Your task to perform on an android device: open app "Google Duo" Image 0: 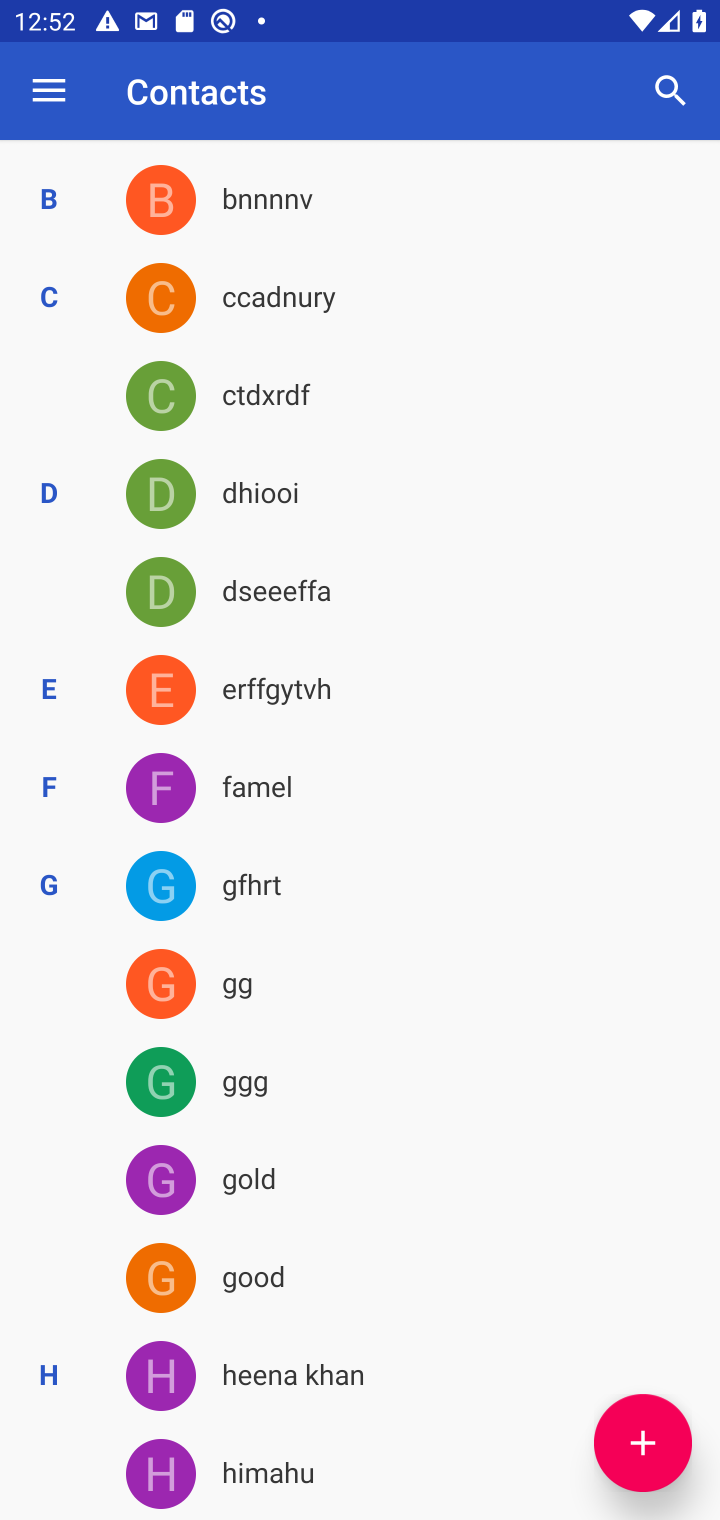
Step 0: press home button
Your task to perform on an android device: open app "Google Duo" Image 1: 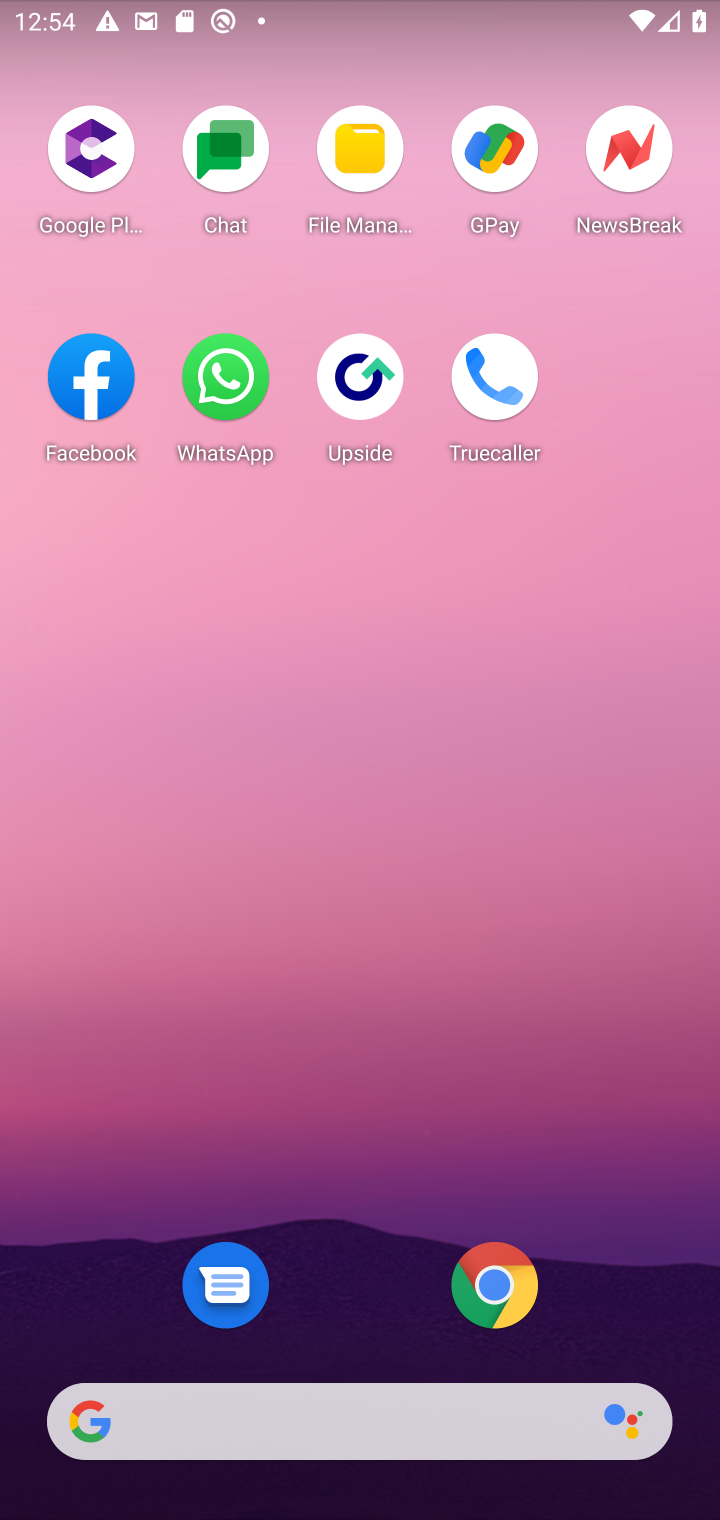
Step 1: drag from (348, 1321) to (254, 26)
Your task to perform on an android device: open app "Google Duo" Image 2: 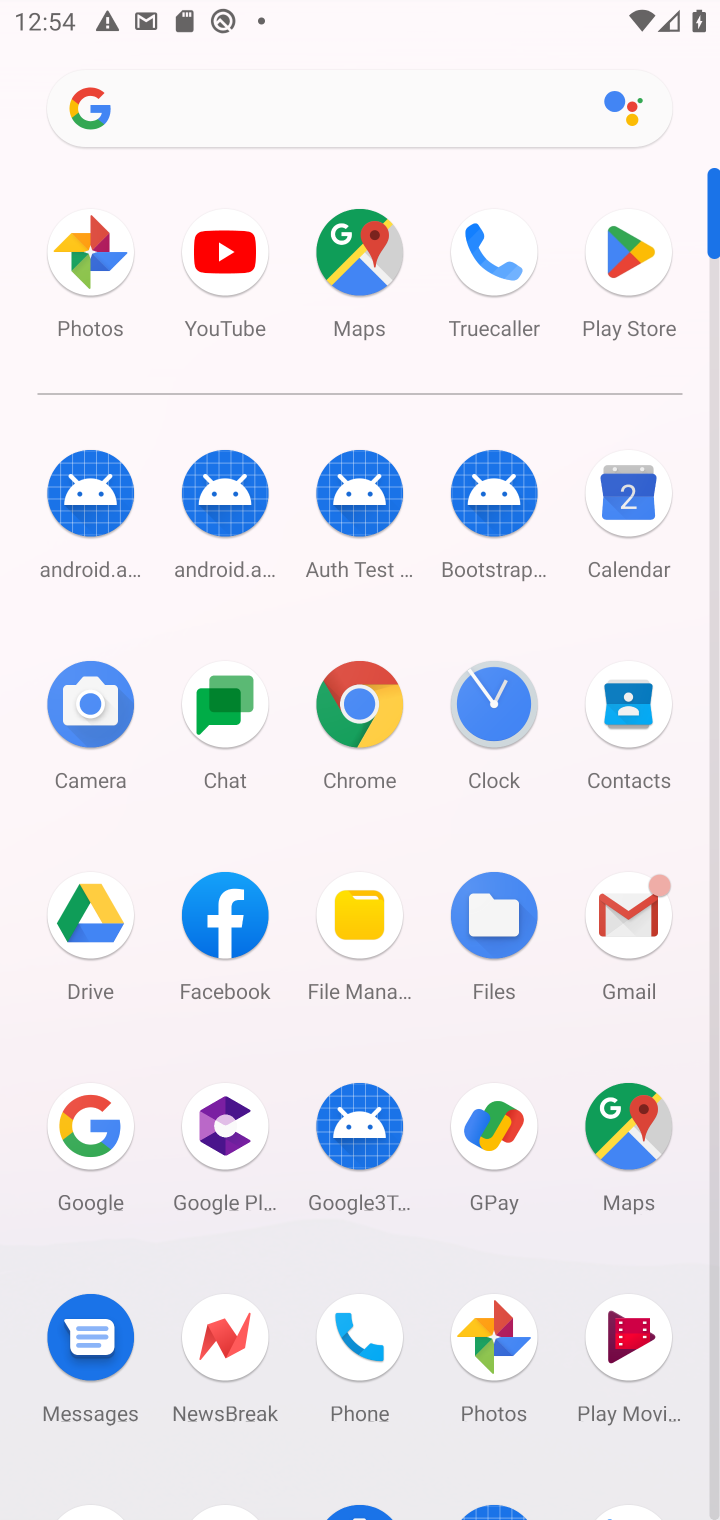
Step 2: drag from (409, 1205) to (396, 331)
Your task to perform on an android device: open app "Google Duo" Image 3: 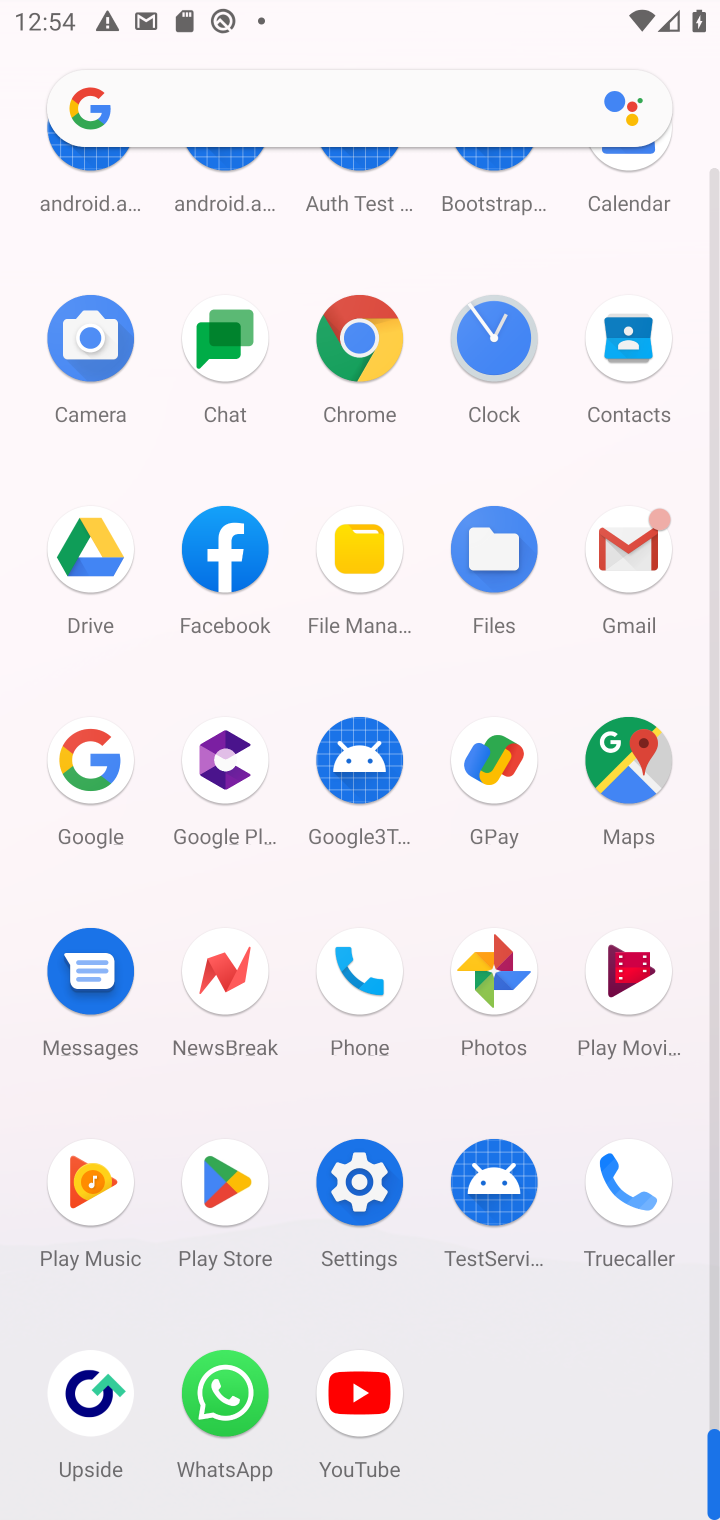
Step 3: click (222, 1178)
Your task to perform on an android device: open app "Google Duo" Image 4: 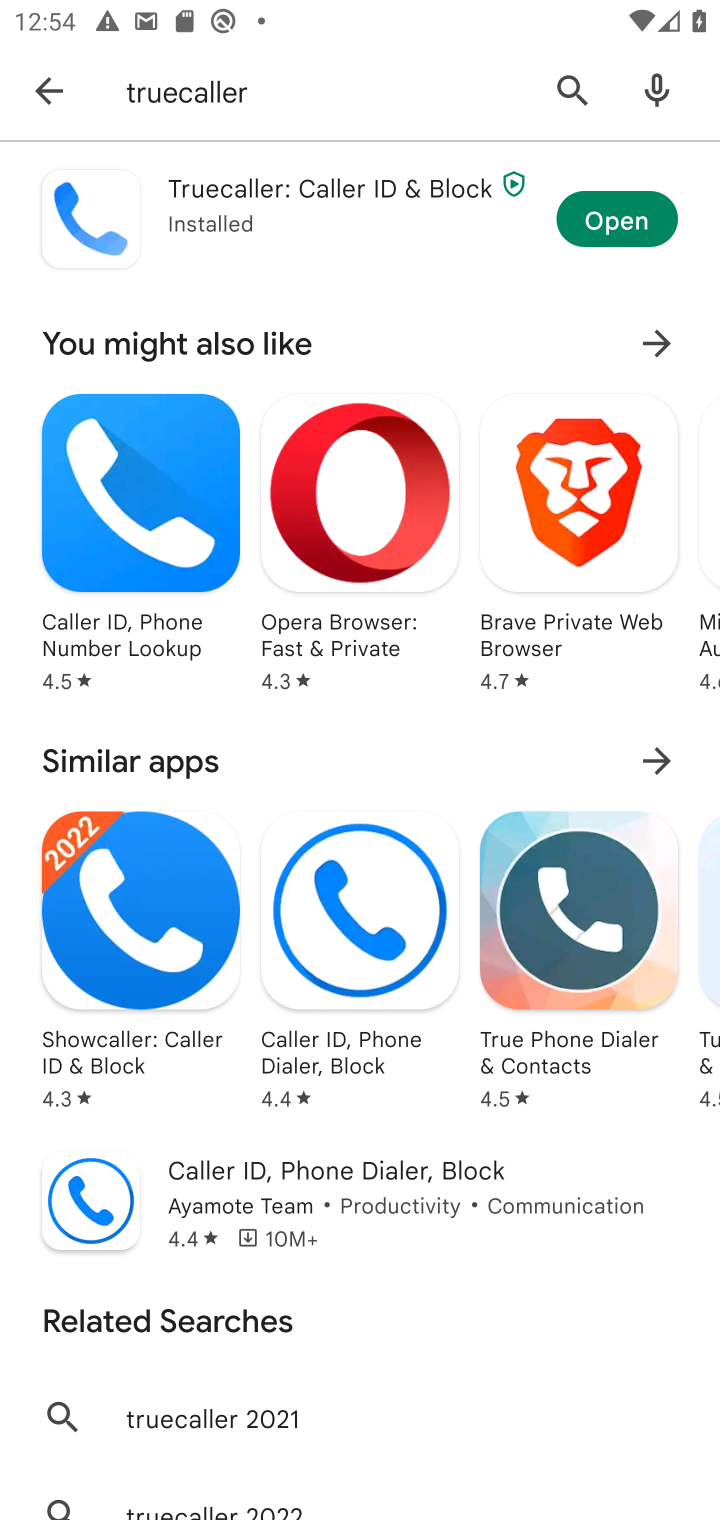
Step 4: click (575, 88)
Your task to perform on an android device: open app "Google Duo" Image 5: 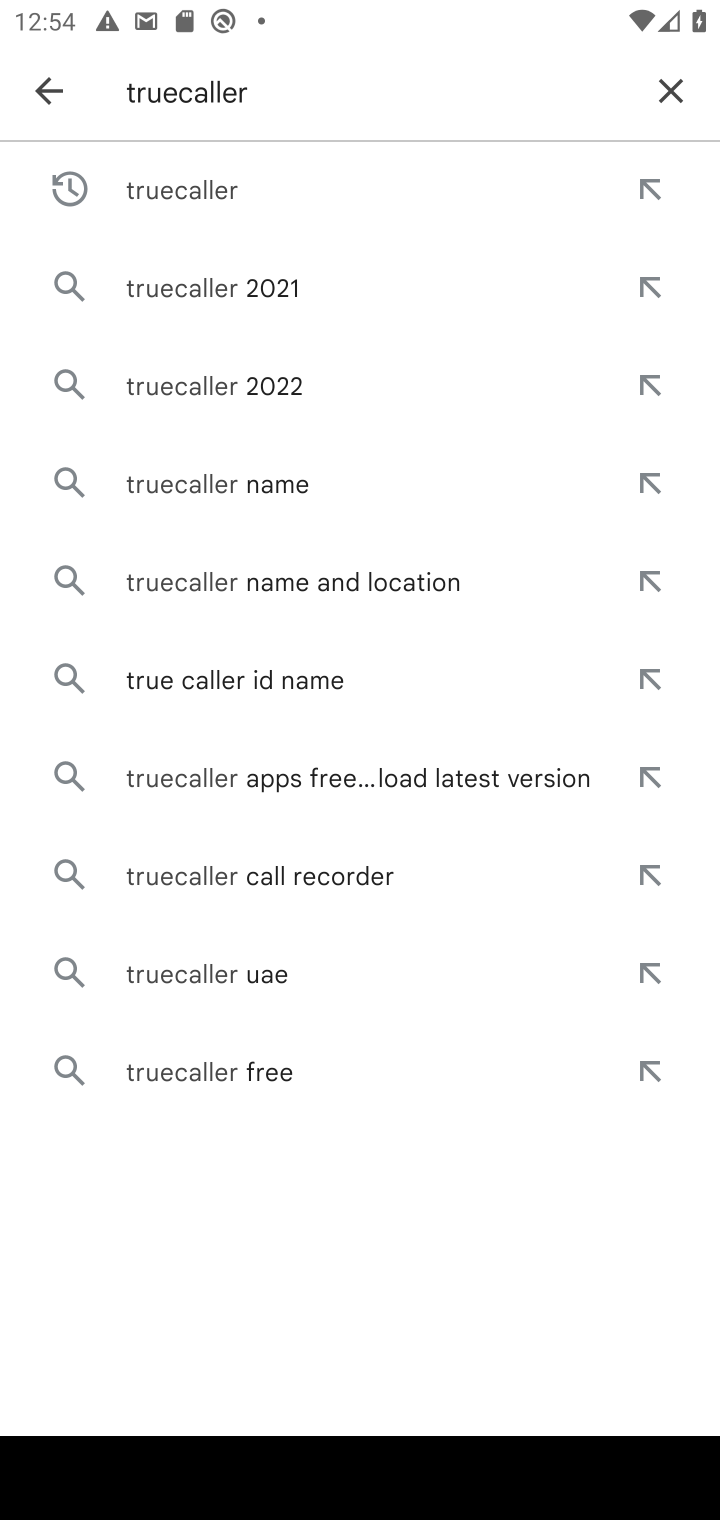
Step 5: click (668, 74)
Your task to perform on an android device: open app "Google Duo" Image 6: 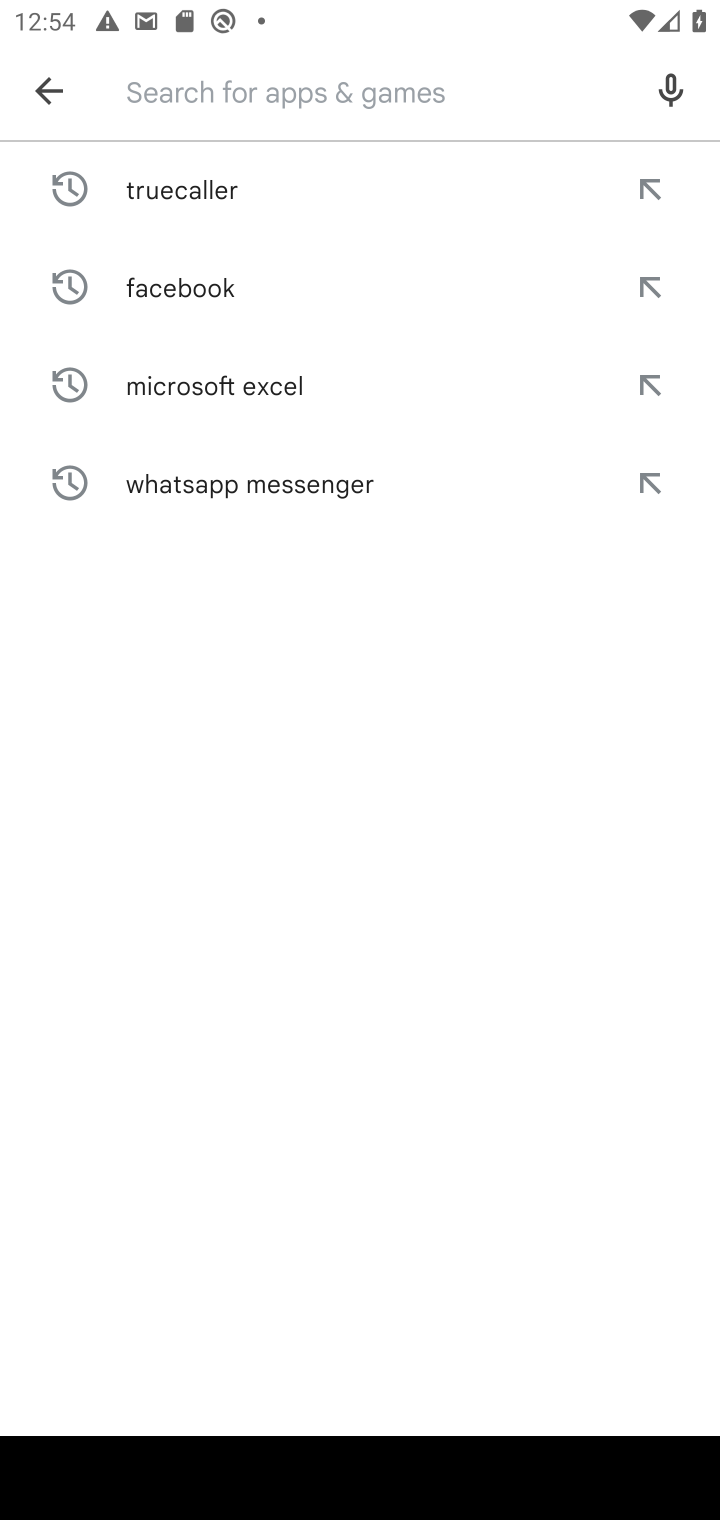
Step 6: type "Google Duo""
Your task to perform on an android device: open app "Google Duo" Image 7: 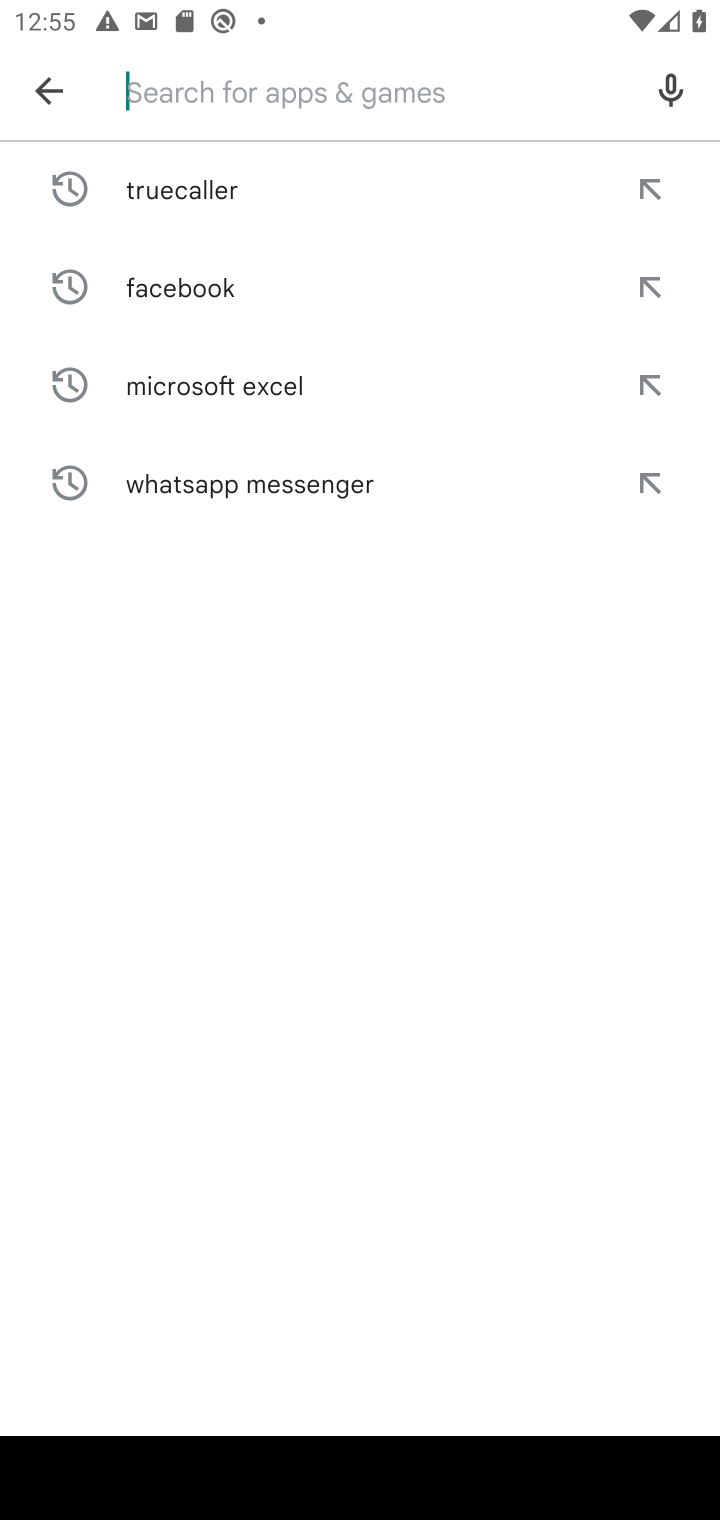
Step 7: type "Google Duo"
Your task to perform on an android device: open app "Google Duo" Image 8: 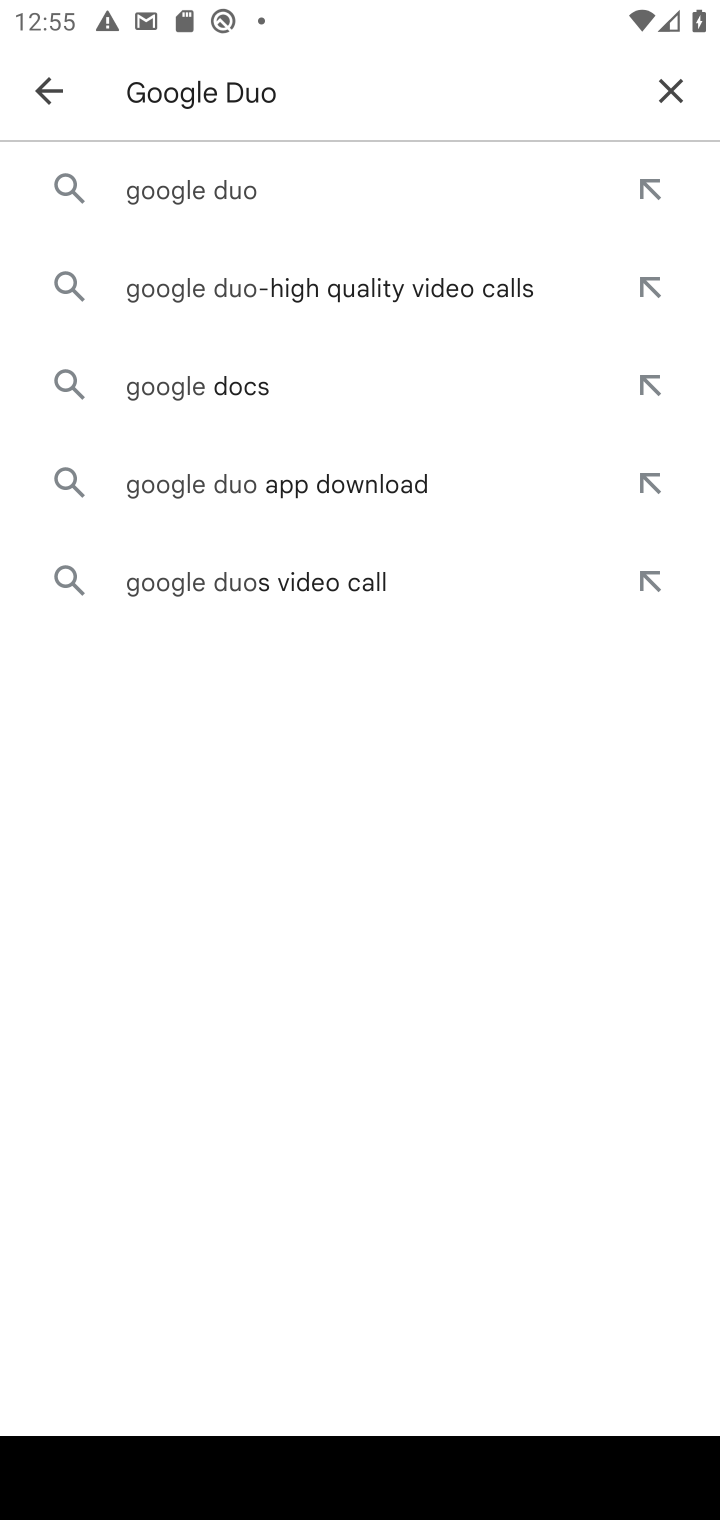
Step 8: click (193, 179)
Your task to perform on an android device: open app "Google Duo" Image 9: 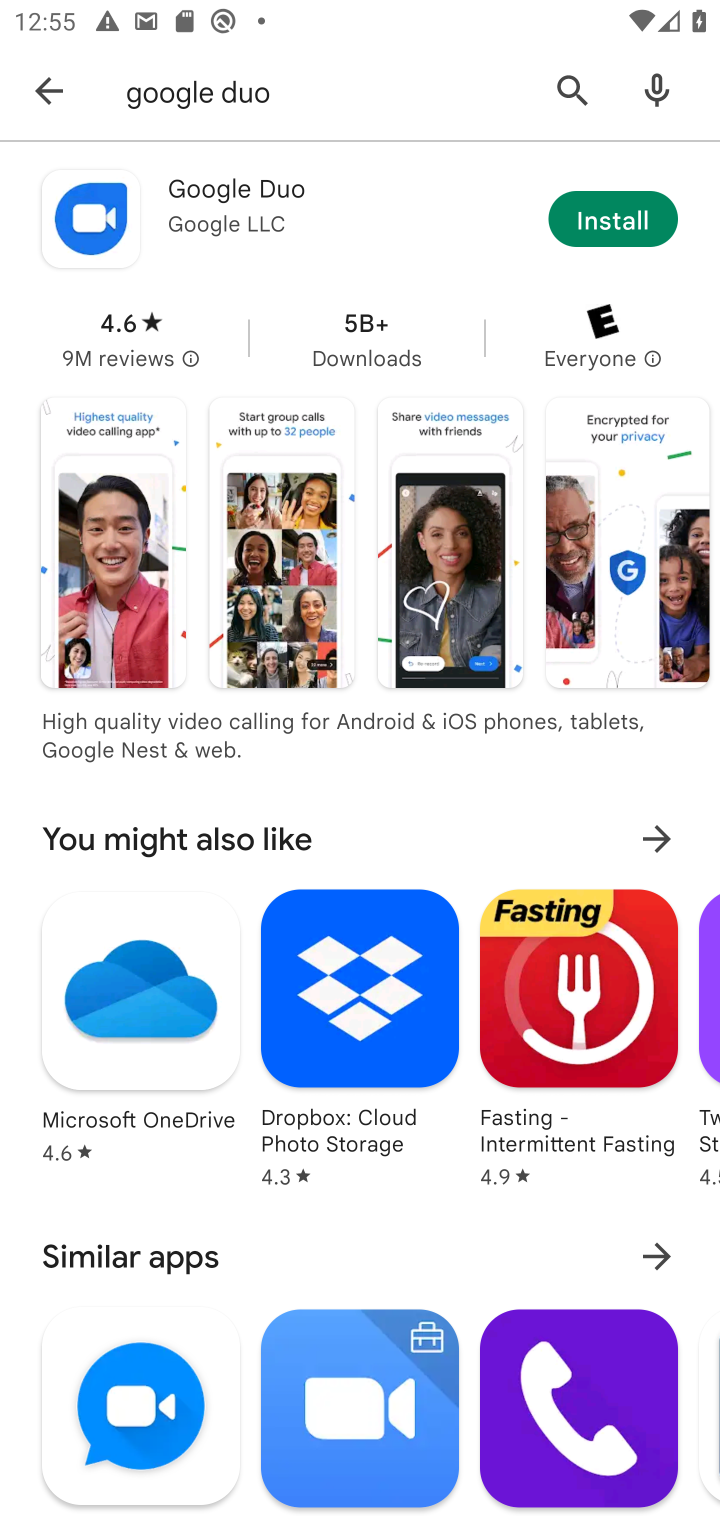
Step 9: task complete